Your task to perform on an android device: Go to notification settings Image 0: 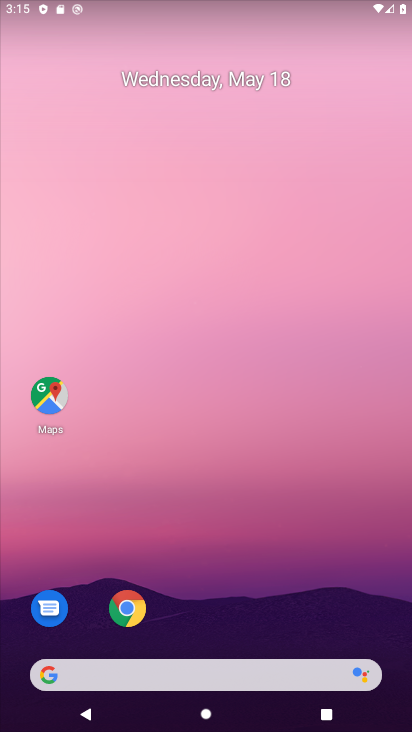
Step 0: drag from (270, 639) to (238, 7)
Your task to perform on an android device: Go to notification settings Image 1: 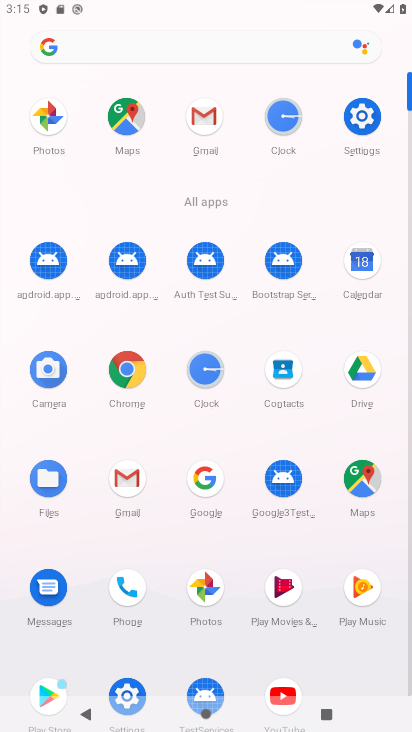
Step 1: click (123, 688)
Your task to perform on an android device: Go to notification settings Image 2: 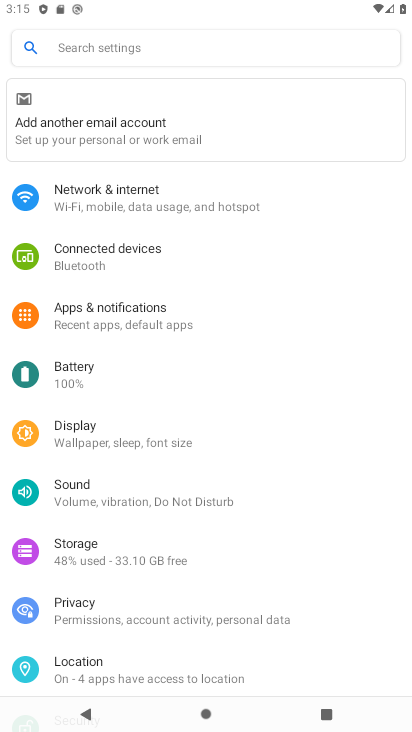
Step 2: click (130, 314)
Your task to perform on an android device: Go to notification settings Image 3: 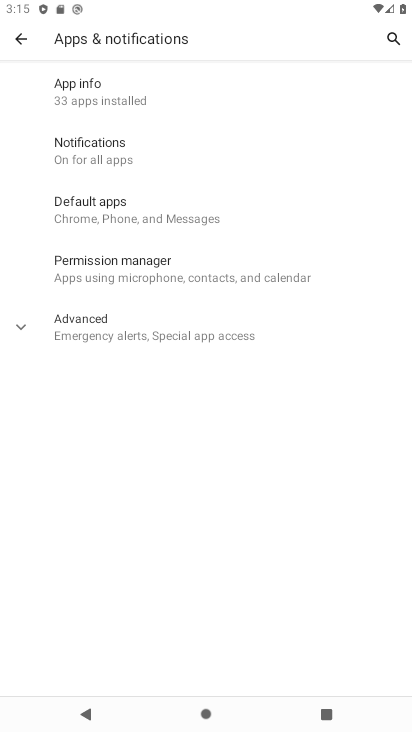
Step 3: task complete